Your task to perform on an android device: open app "Roku - Official Remote Control" (install if not already installed) Image 0: 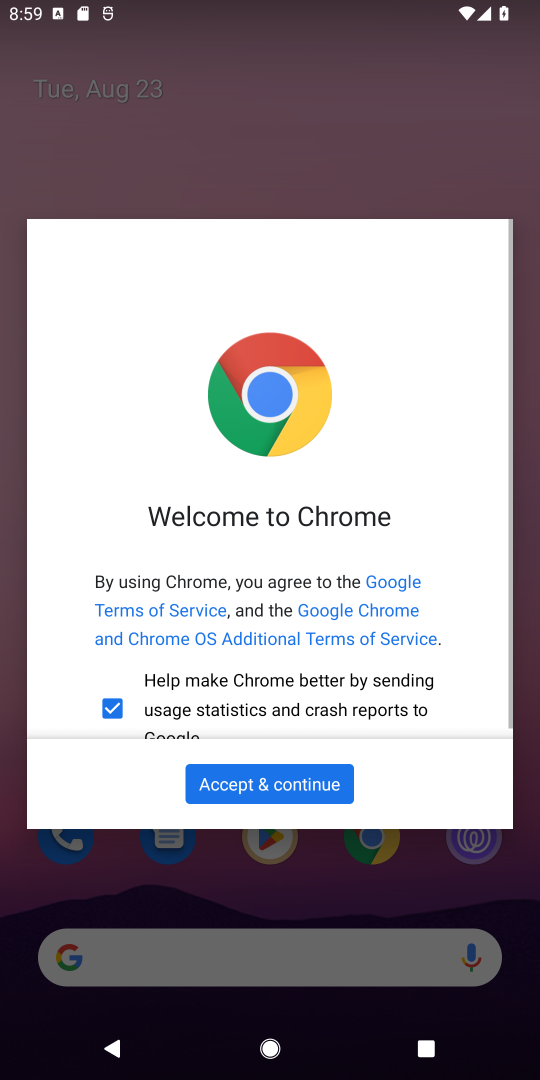
Step 0: press home button
Your task to perform on an android device: open app "Roku - Official Remote Control" (install if not already installed) Image 1: 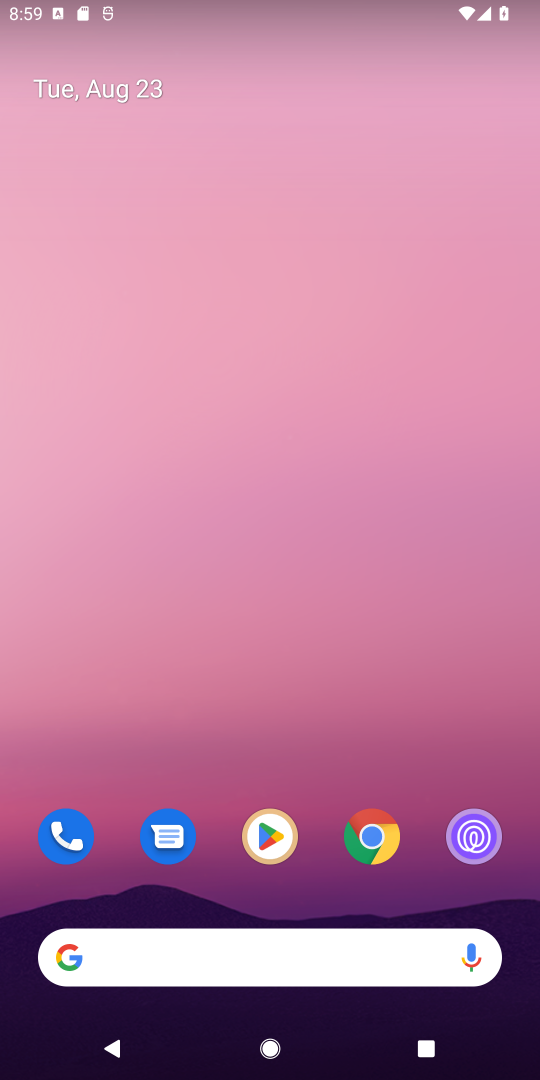
Step 1: click (266, 829)
Your task to perform on an android device: open app "Roku - Official Remote Control" (install if not already installed) Image 2: 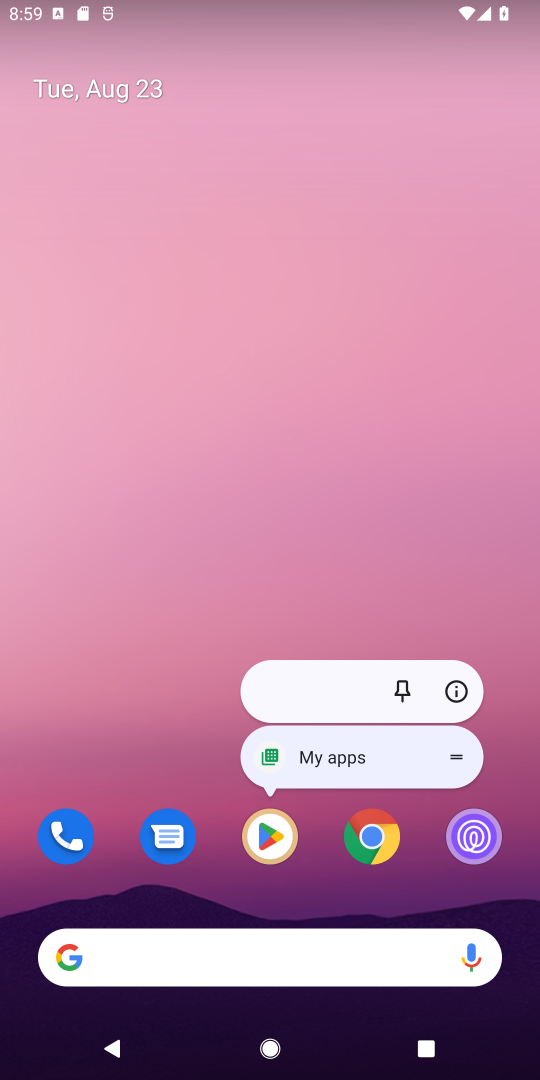
Step 2: click (266, 837)
Your task to perform on an android device: open app "Roku - Official Remote Control" (install if not already installed) Image 3: 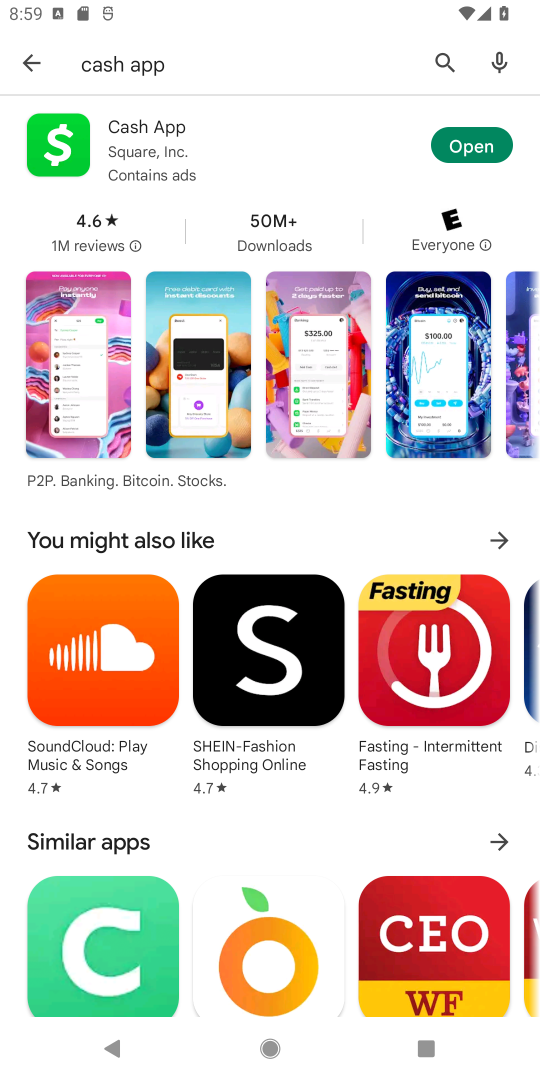
Step 3: click (441, 51)
Your task to perform on an android device: open app "Roku - Official Remote Control" (install if not already installed) Image 4: 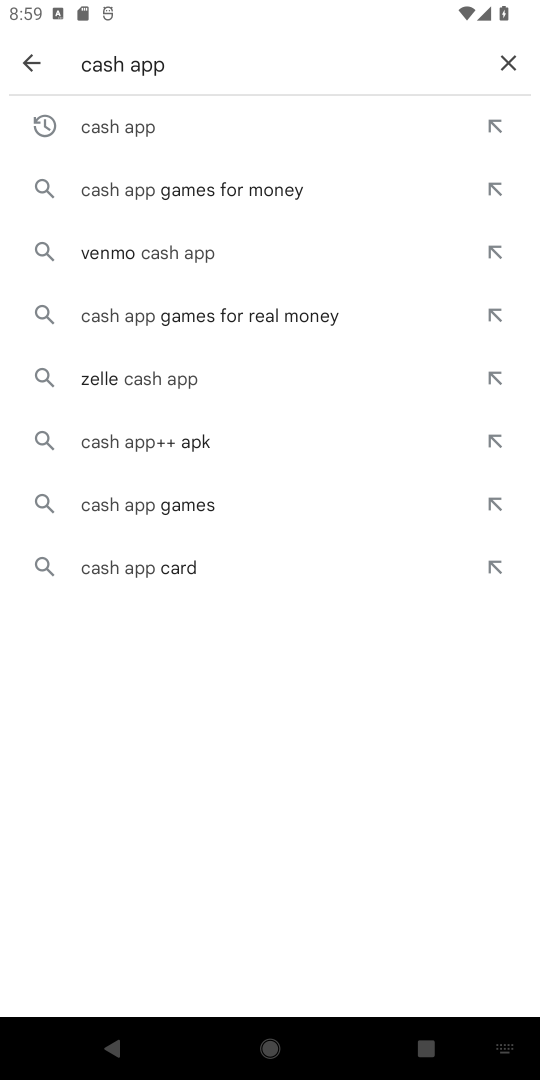
Step 4: click (498, 61)
Your task to perform on an android device: open app "Roku - Official Remote Control" (install if not already installed) Image 5: 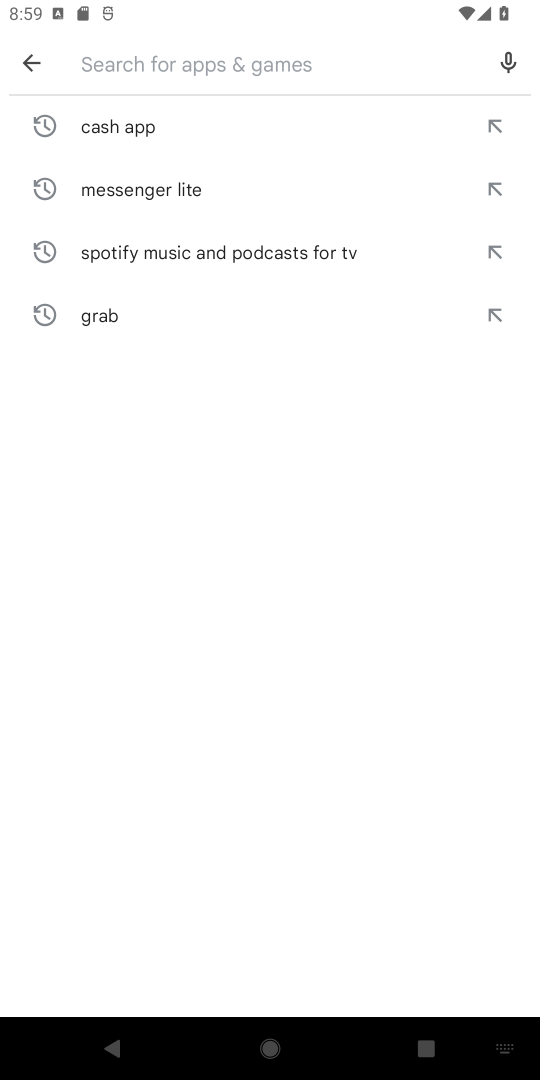
Step 5: type "Roku - Official Remote Control"
Your task to perform on an android device: open app "Roku - Official Remote Control" (install if not already installed) Image 6: 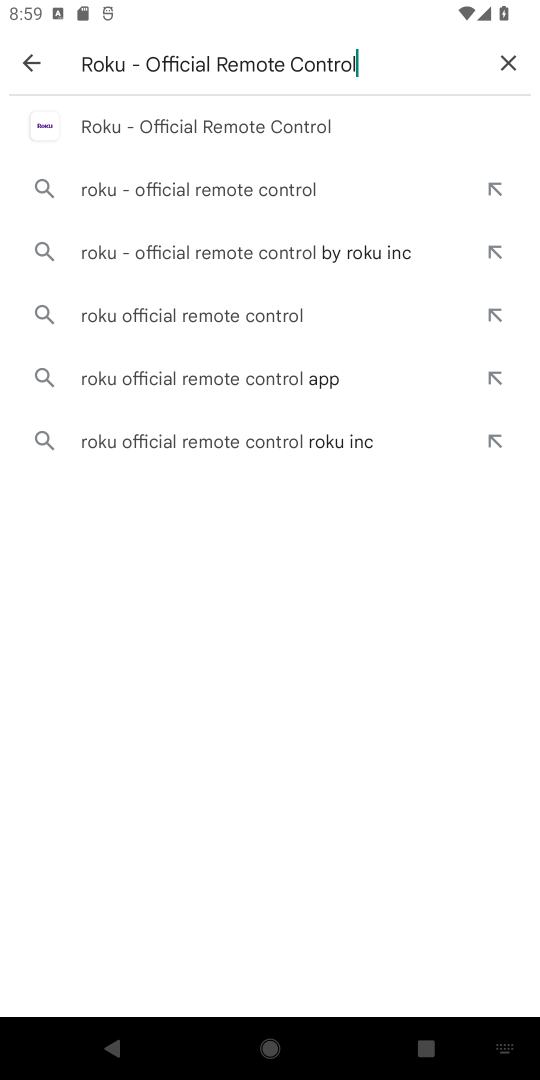
Step 6: click (228, 131)
Your task to perform on an android device: open app "Roku - Official Remote Control" (install if not already installed) Image 7: 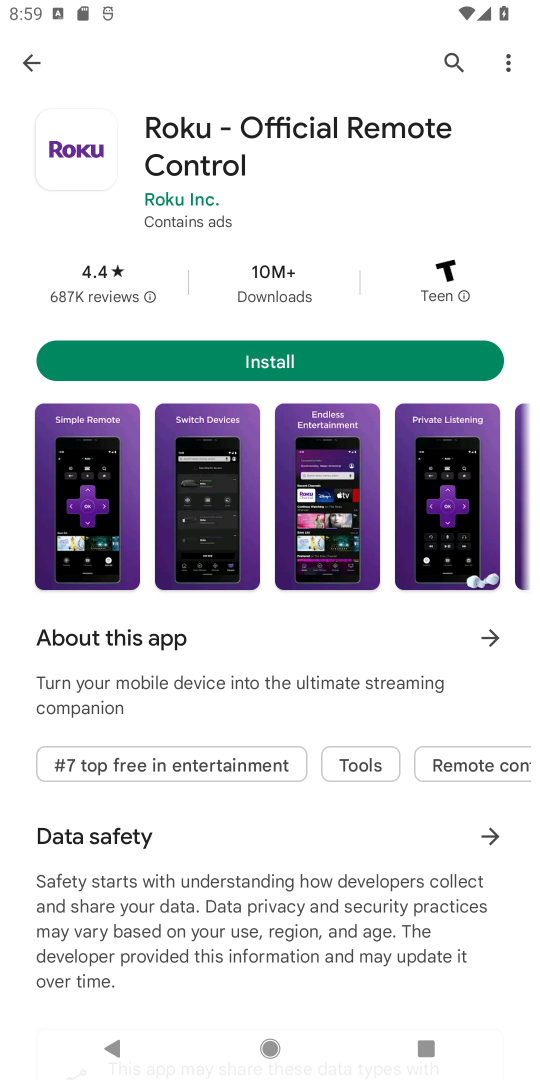
Step 7: click (318, 358)
Your task to perform on an android device: open app "Roku - Official Remote Control" (install if not already installed) Image 8: 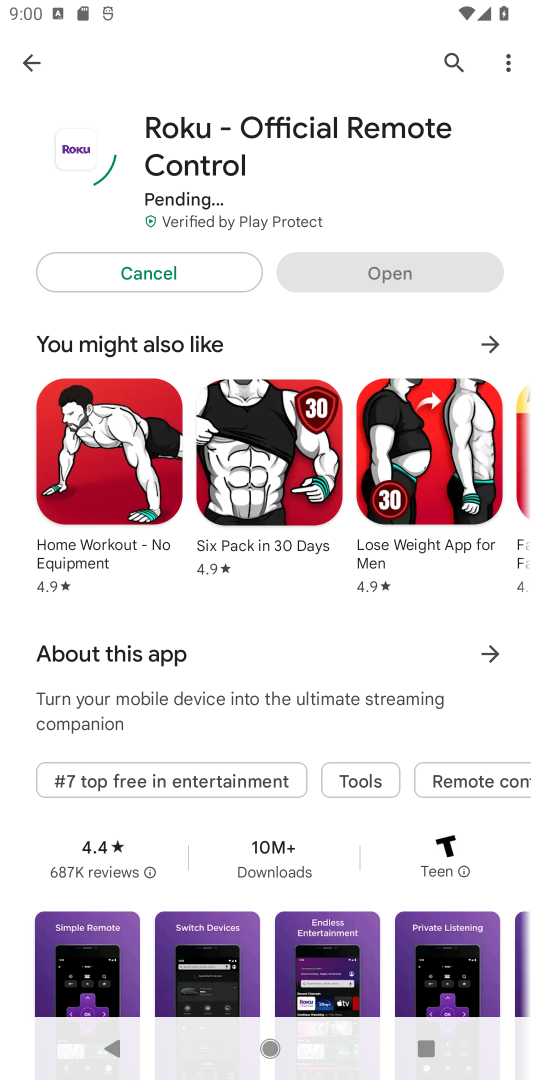
Step 8: press home button
Your task to perform on an android device: open app "Roku - Official Remote Control" (install if not already installed) Image 9: 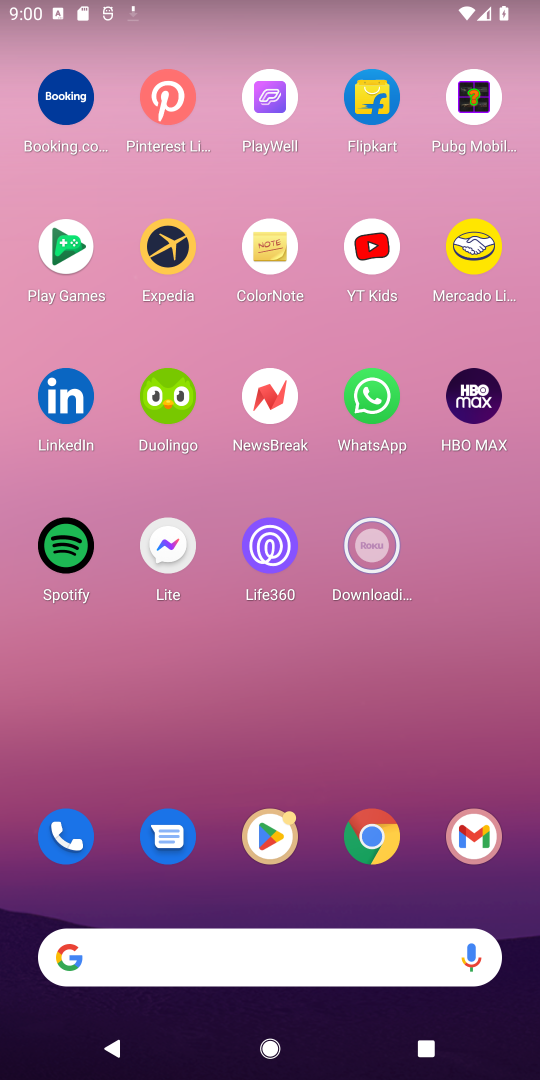
Step 9: click (269, 832)
Your task to perform on an android device: open app "Roku - Official Remote Control" (install if not already installed) Image 10: 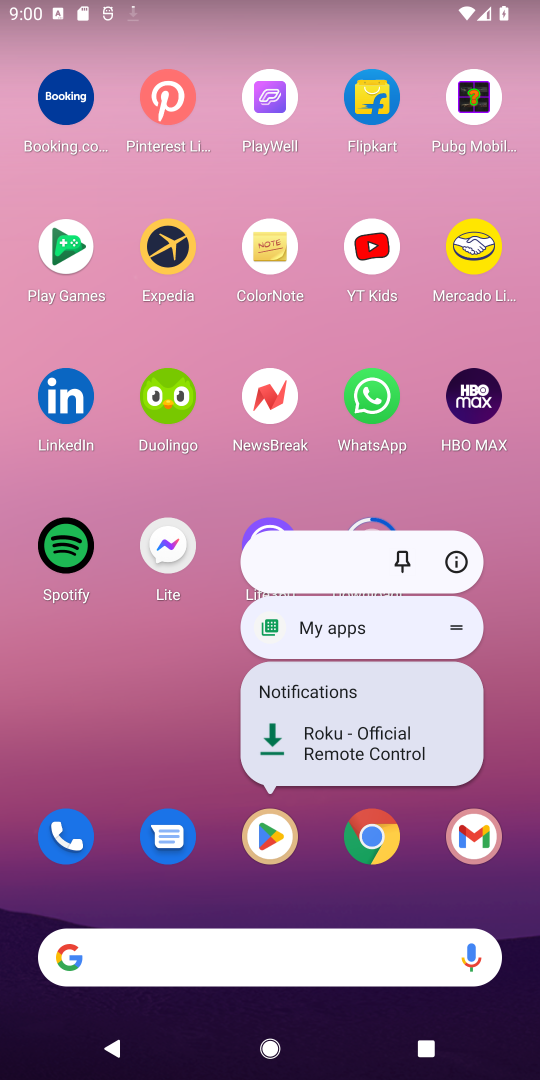
Step 10: click (268, 837)
Your task to perform on an android device: open app "Roku - Official Remote Control" (install if not already installed) Image 11: 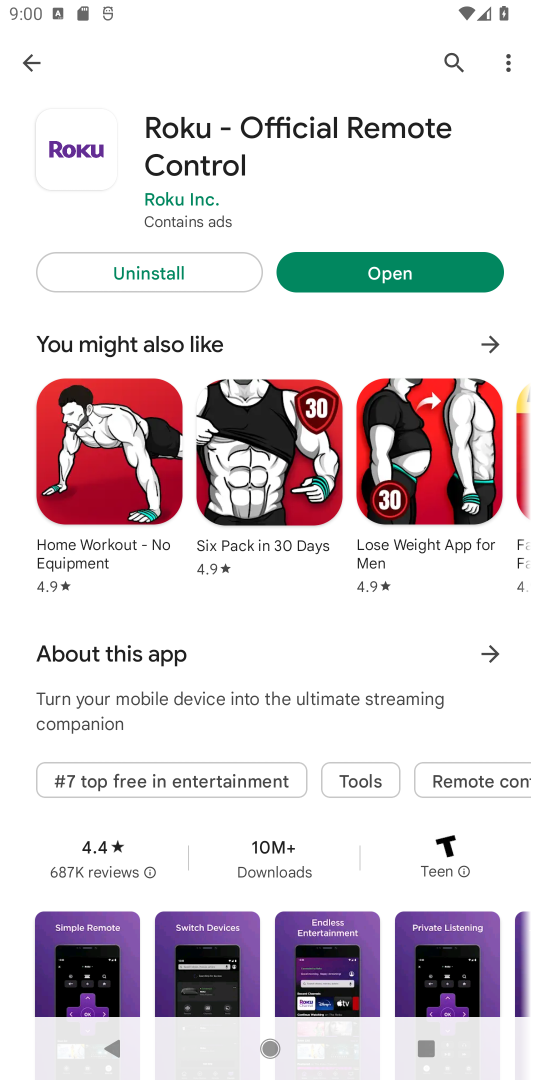
Step 11: click (416, 275)
Your task to perform on an android device: open app "Roku - Official Remote Control" (install if not already installed) Image 12: 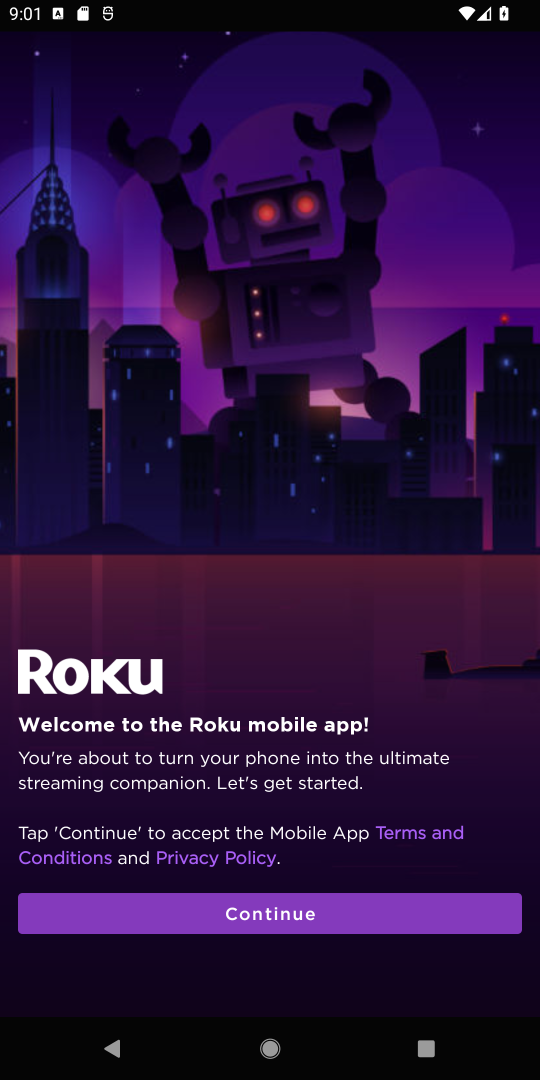
Step 12: task complete